Your task to perform on an android device: Open location settings Image 0: 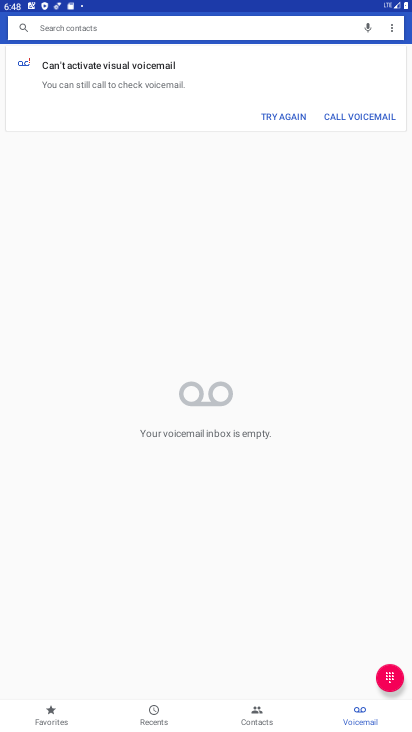
Step 0: press home button
Your task to perform on an android device: Open location settings Image 1: 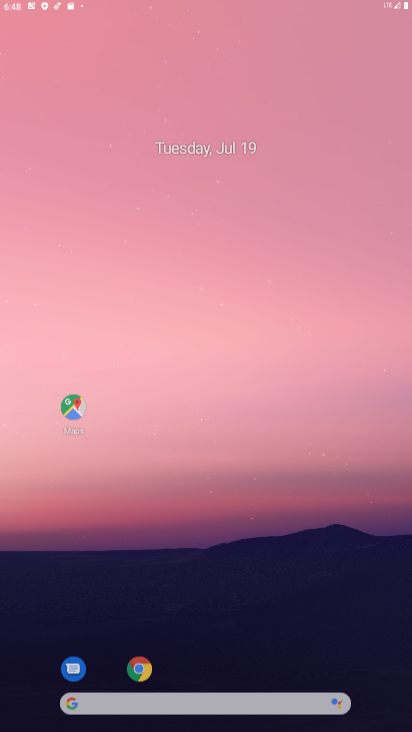
Step 1: drag from (372, 692) to (223, 0)
Your task to perform on an android device: Open location settings Image 2: 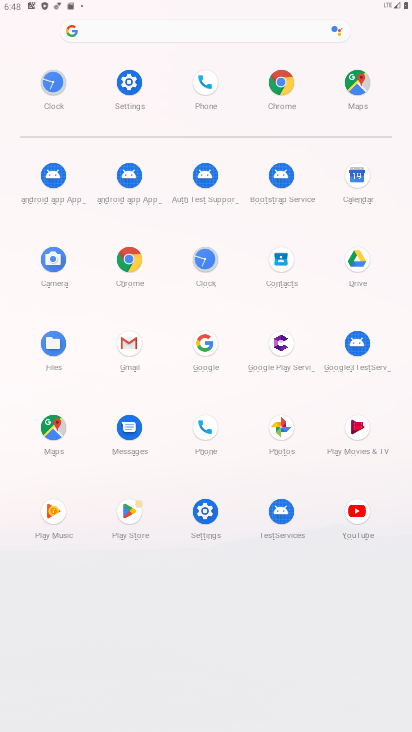
Step 2: click (209, 509)
Your task to perform on an android device: Open location settings Image 3: 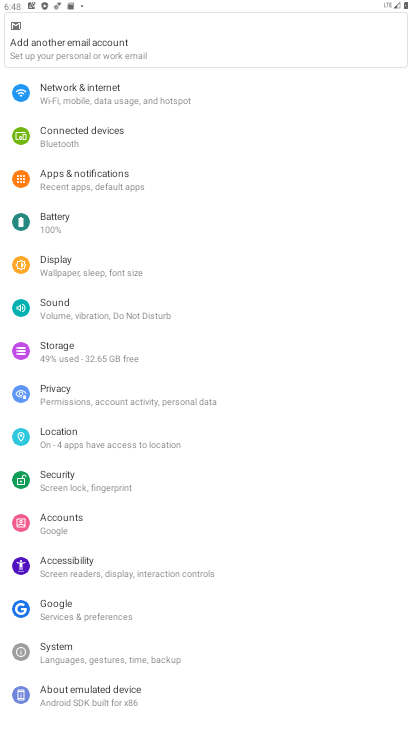
Step 3: click (77, 448)
Your task to perform on an android device: Open location settings Image 4: 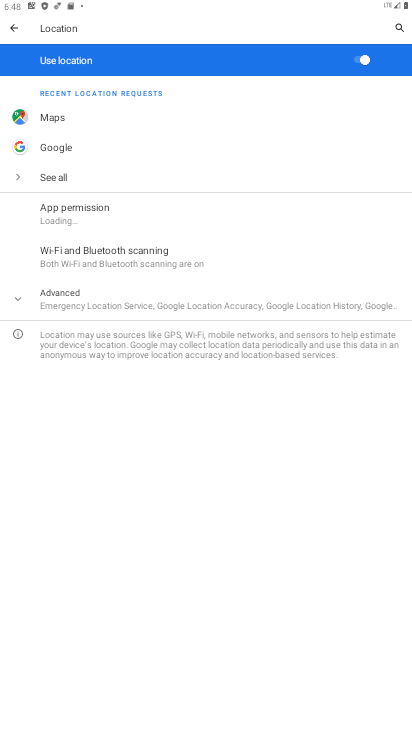
Step 4: task complete